Your task to perform on an android device: clear all cookies in the chrome app Image 0: 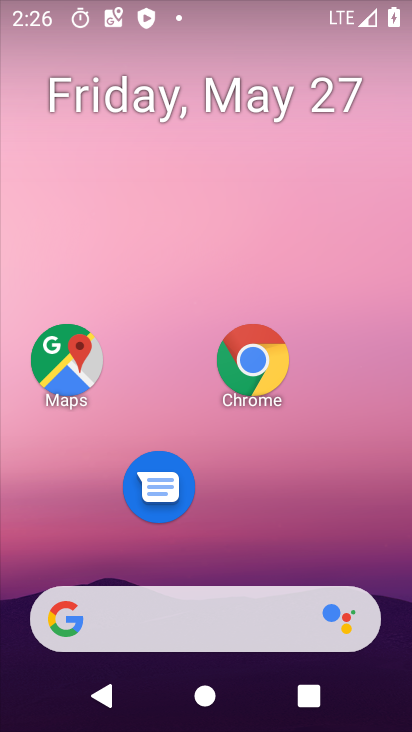
Step 0: click (263, 363)
Your task to perform on an android device: clear all cookies in the chrome app Image 1: 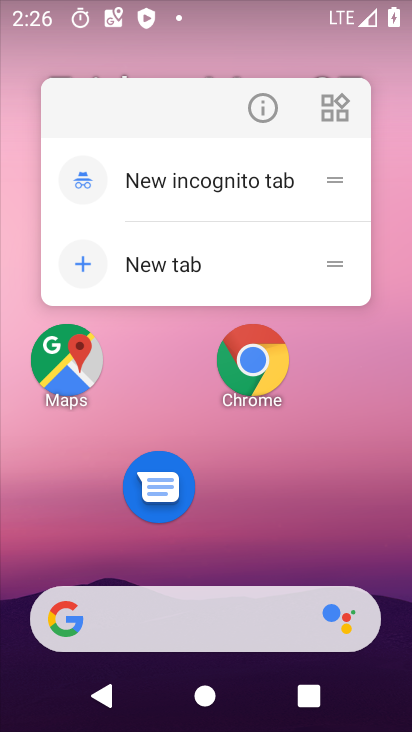
Step 1: click (263, 363)
Your task to perform on an android device: clear all cookies in the chrome app Image 2: 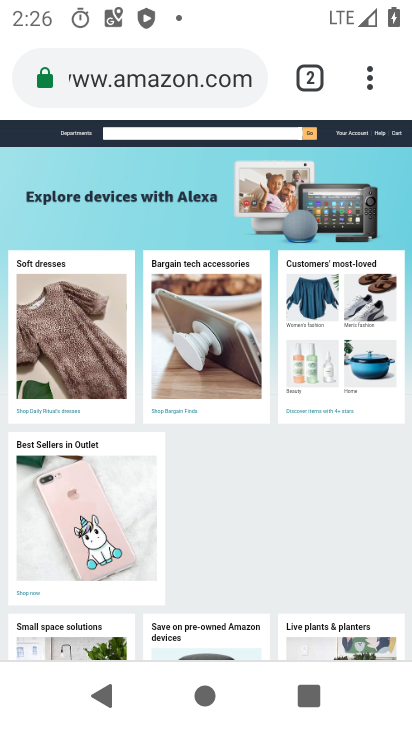
Step 2: click (359, 78)
Your task to perform on an android device: clear all cookies in the chrome app Image 3: 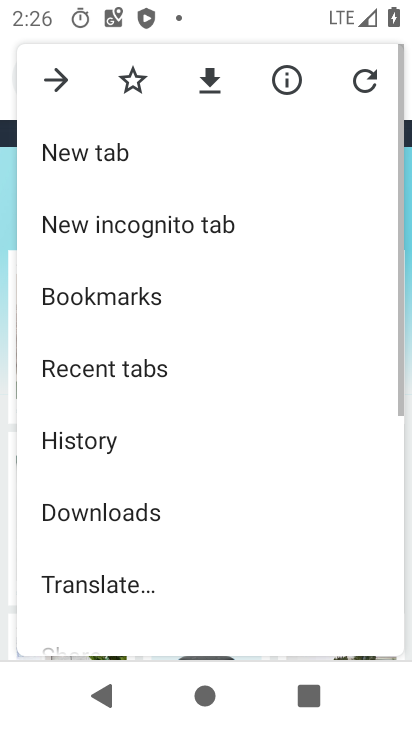
Step 3: drag from (240, 441) to (235, 163)
Your task to perform on an android device: clear all cookies in the chrome app Image 4: 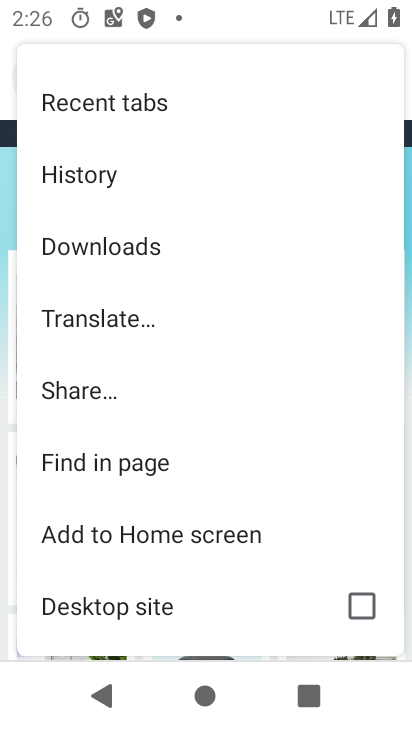
Step 4: drag from (192, 555) to (193, 209)
Your task to perform on an android device: clear all cookies in the chrome app Image 5: 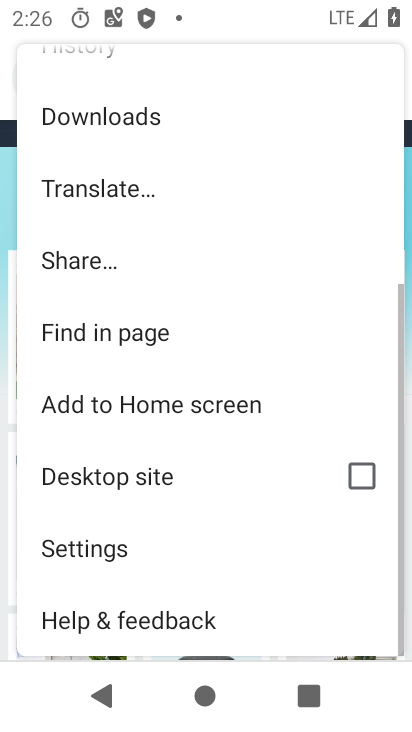
Step 5: click (94, 556)
Your task to perform on an android device: clear all cookies in the chrome app Image 6: 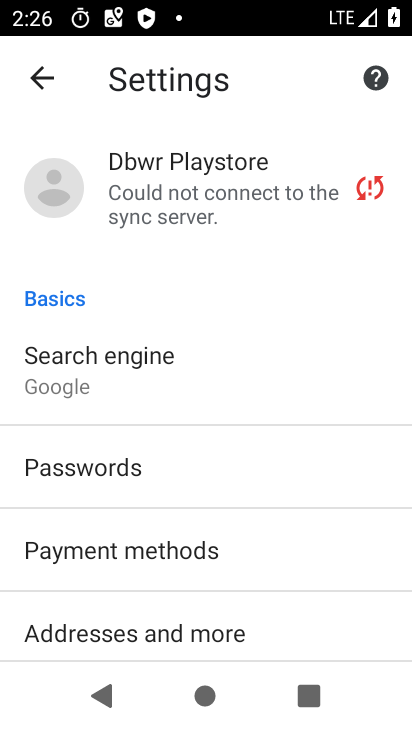
Step 6: drag from (171, 566) to (221, 186)
Your task to perform on an android device: clear all cookies in the chrome app Image 7: 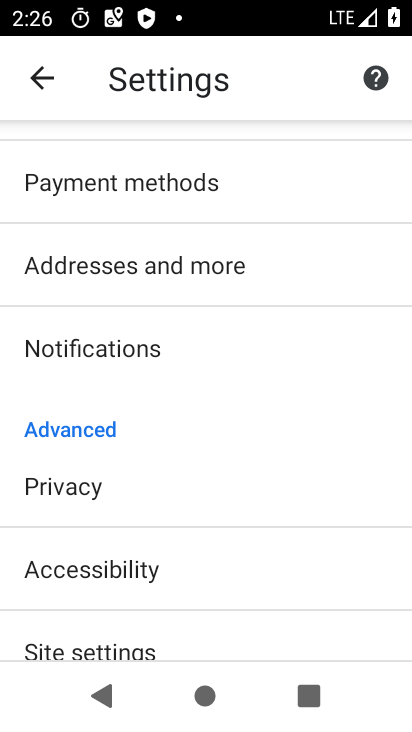
Step 7: click (115, 641)
Your task to perform on an android device: clear all cookies in the chrome app Image 8: 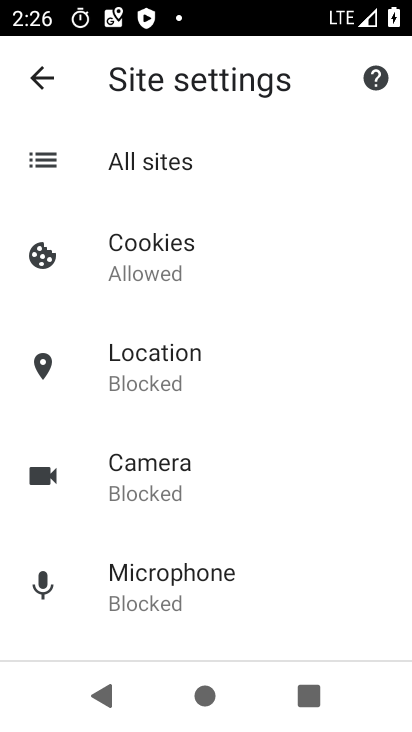
Step 8: click (193, 252)
Your task to perform on an android device: clear all cookies in the chrome app Image 9: 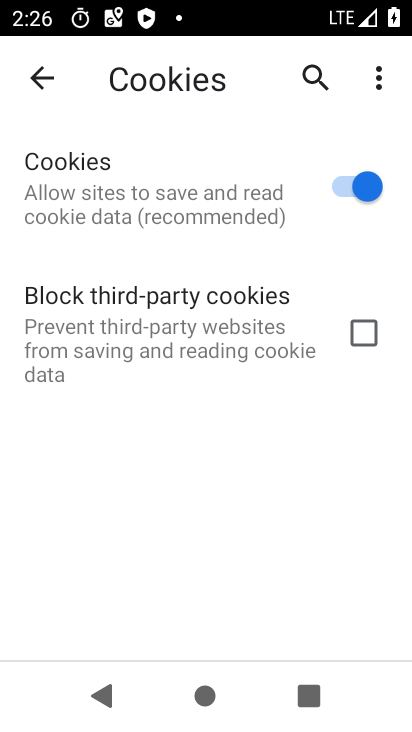
Step 9: task complete